Your task to perform on an android device: Open the phone app and click the voicemail tab. Image 0: 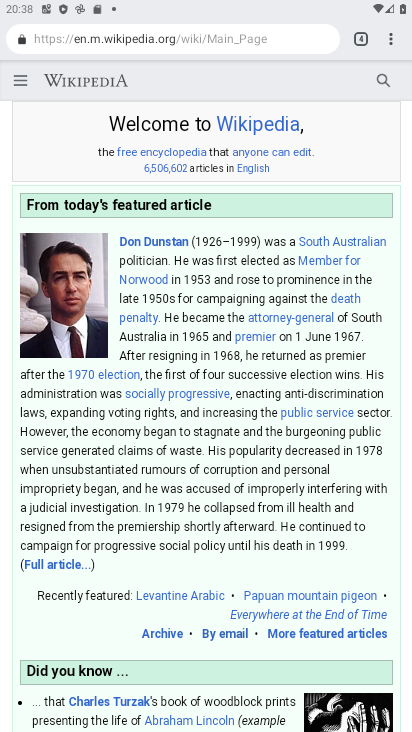
Step 0: press home button
Your task to perform on an android device: Open the phone app and click the voicemail tab. Image 1: 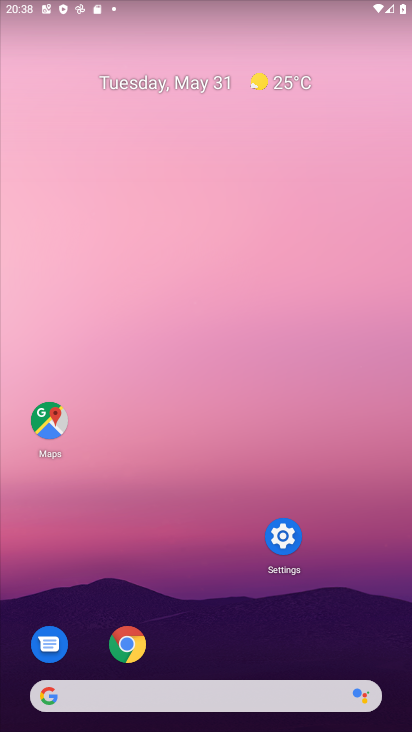
Step 1: drag from (233, 716) to (284, 62)
Your task to perform on an android device: Open the phone app and click the voicemail tab. Image 2: 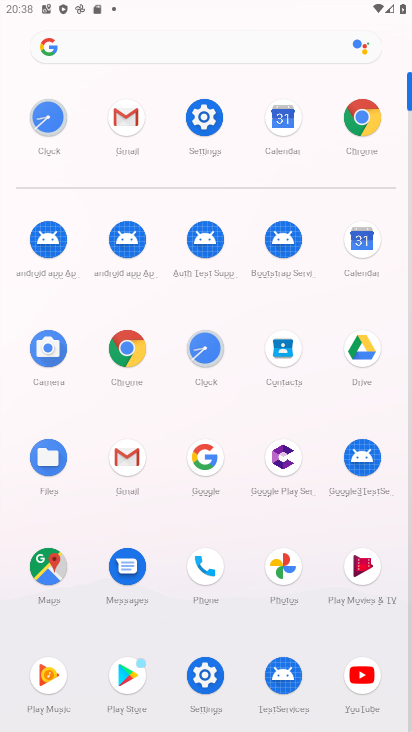
Step 2: click (202, 550)
Your task to perform on an android device: Open the phone app and click the voicemail tab. Image 3: 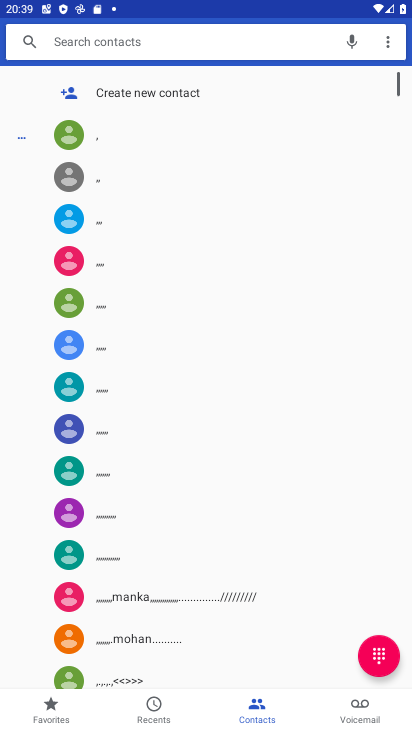
Step 3: click (368, 701)
Your task to perform on an android device: Open the phone app and click the voicemail tab. Image 4: 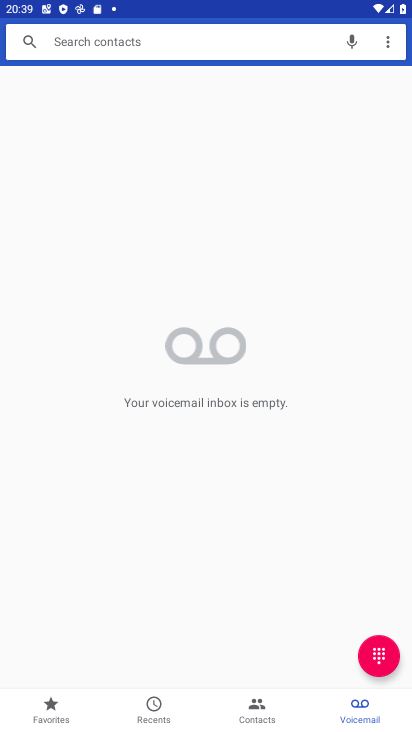
Step 4: task complete